Your task to perform on an android device: find snoozed emails in the gmail app Image 0: 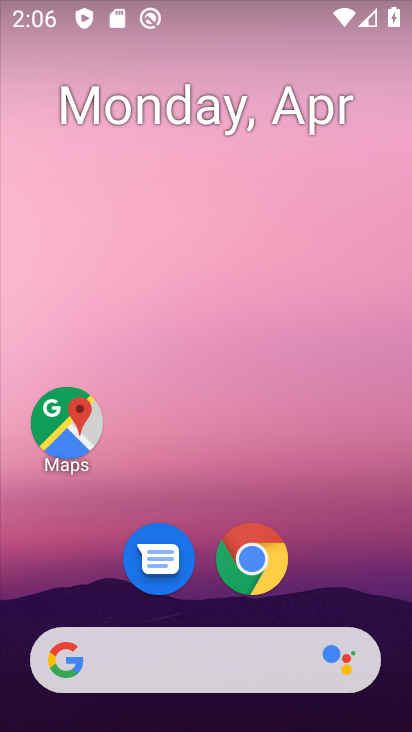
Step 0: drag from (350, 546) to (68, 105)
Your task to perform on an android device: find snoozed emails in the gmail app Image 1: 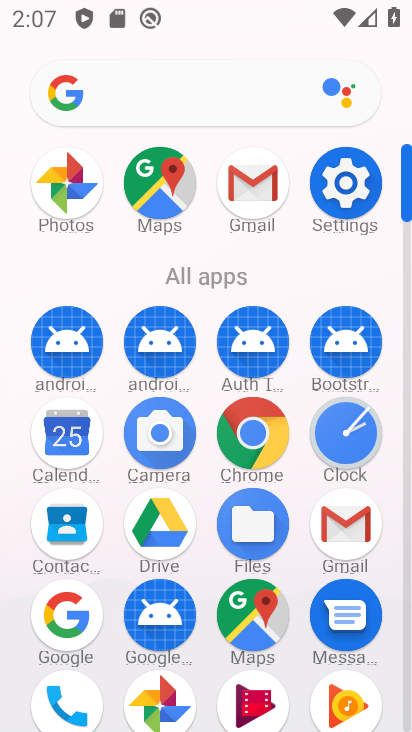
Step 1: click (356, 543)
Your task to perform on an android device: find snoozed emails in the gmail app Image 2: 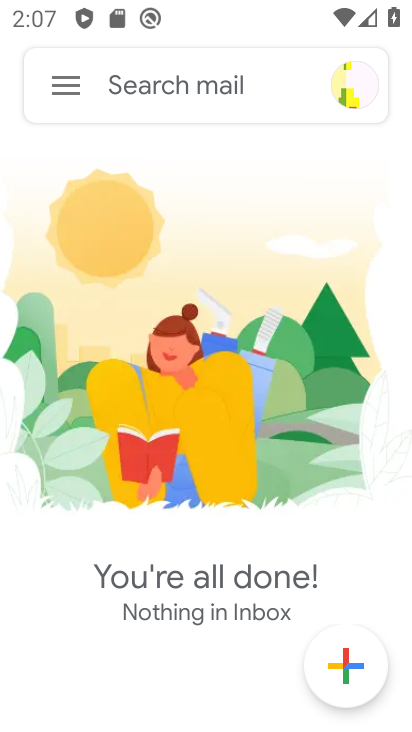
Step 2: click (65, 85)
Your task to perform on an android device: find snoozed emails in the gmail app Image 3: 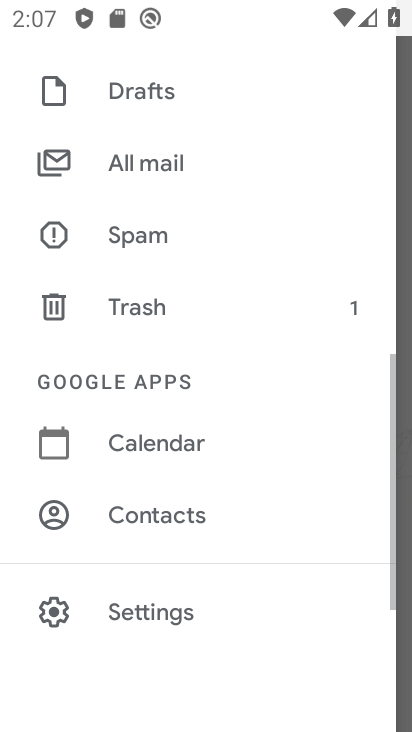
Step 3: drag from (233, 222) to (231, 654)
Your task to perform on an android device: find snoozed emails in the gmail app Image 4: 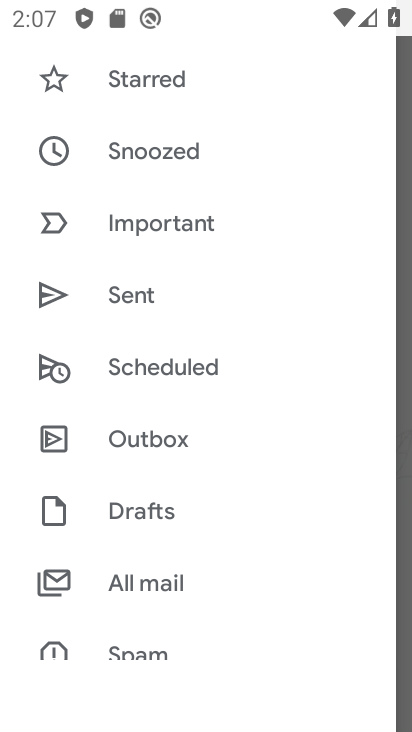
Step 4: drag from (139, 158) to (140, 513)
Your task to perform on an android device: find snoozed emails in the gmail app Image 5: 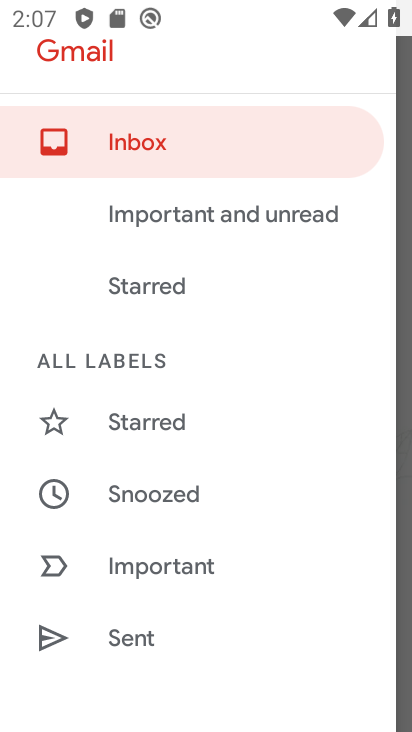
Step 5: click (145, 490)
Your task to perform on an android device: find snoozed emails in the gmail app Image 6: 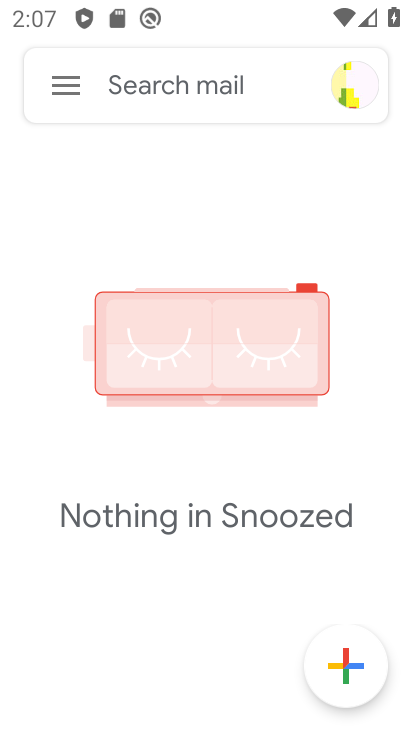
Step 6: task complete